Your task to perform on an android device: Show me productivity apps on the Play Store Image 0: 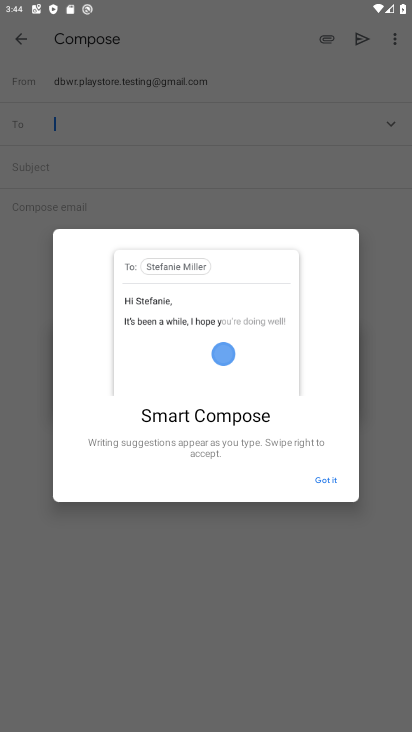
Step 0: press home button
Your task to perform on an android device: Show me productivity apps on the Play Store Image 1: 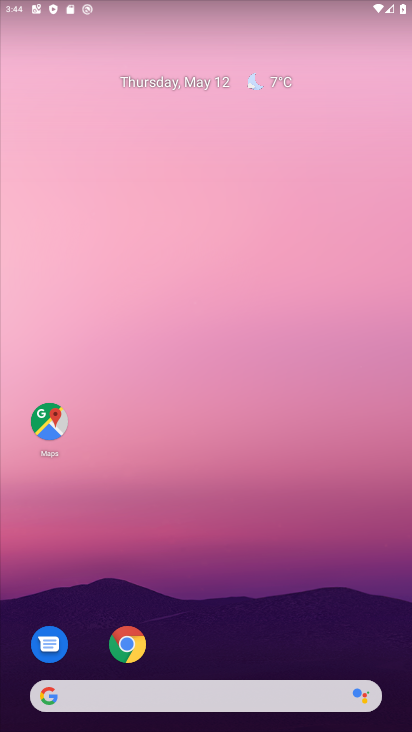
Step 1: drag from (236, 648) to (250, 475)
Your task to perform on an android device: Show me productivity apps on the Play Store Image 2: 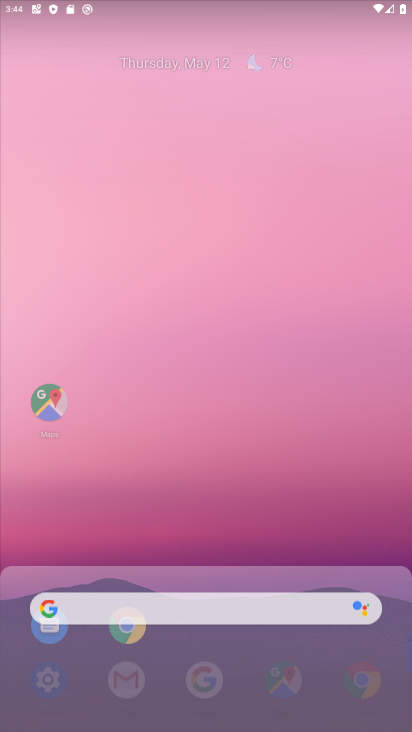
Step 2: click (259, 191)
Your task to perform on an android device: Show me productivity apps on the Play Store Image 3: 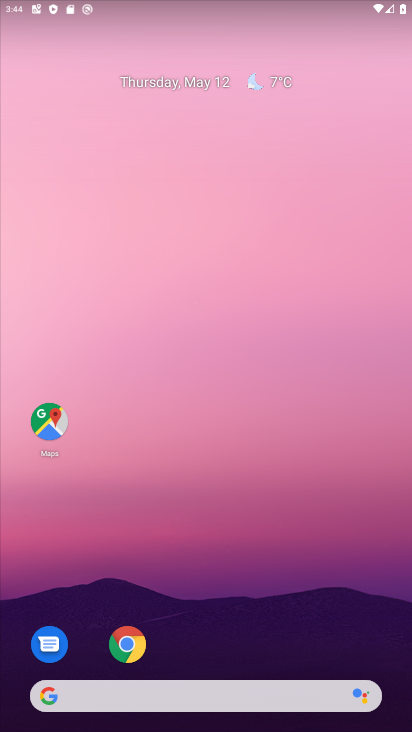
Step 3: drag from (215, 655) to (232, 114)
Your task to perform on an android device: Show me productivity apps on the Play Store Image 4: 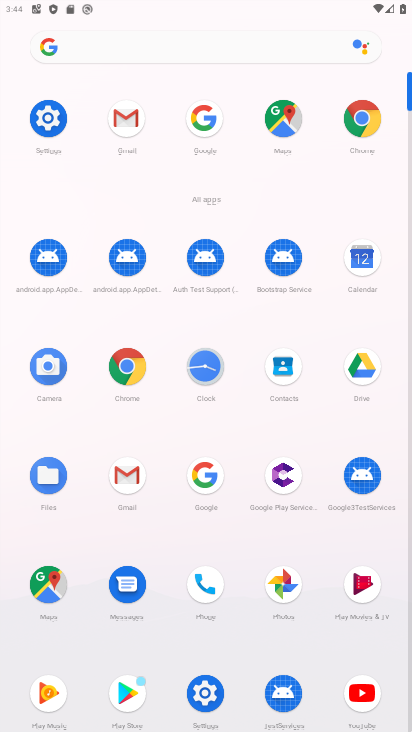
Step 4: click (122, 689)
Your task to perform on an android device: Show me productivity apps on the Play Store Image 5: 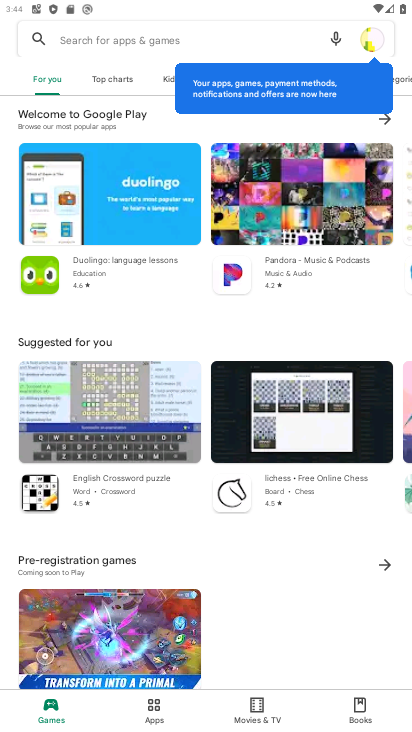
Step 5: click (152, 702)
Your task to perform on an android device: Show me productivity apps on the Play Store Image 6: 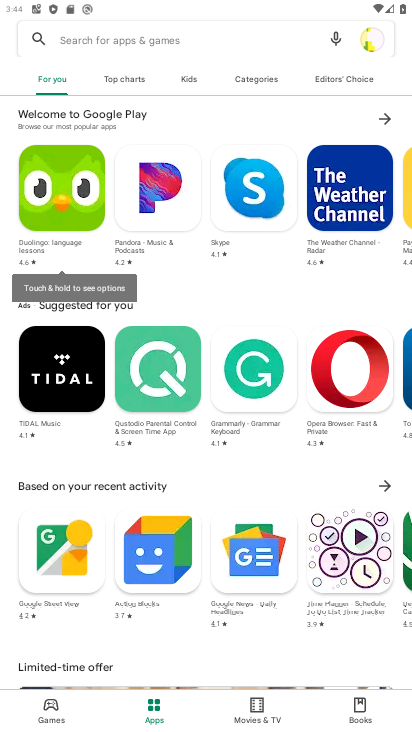
Step 6: click (250, 85)
Your task to perform on an android device: Show me productivity apps on the Play Store Image 7: 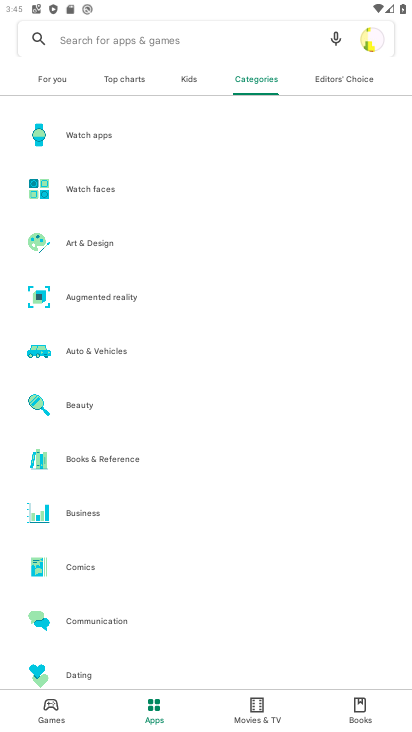
Step 7: drag from (117, 659) to (170, 70)
Your task to perform on an android device: Show me productivity apps on the Play Store Image 8: 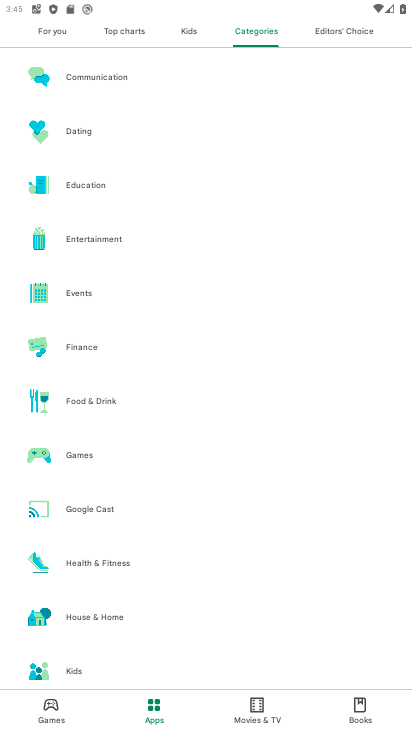
Step 8: drag from (136, 654) to (168, 183)
Your task to perform on an android device: Show me productivity apps on the Play Store Image 9: 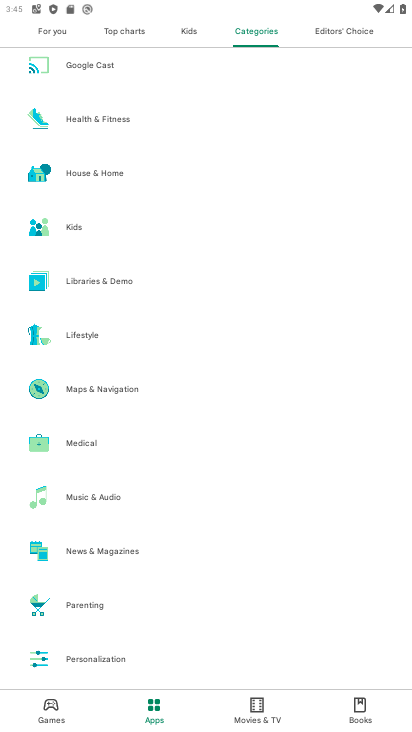
Step 9: drag from (132, 643) to (141, 572)
Your task to perform on an android device: Show me productivity apps on the Play Store Image 10: 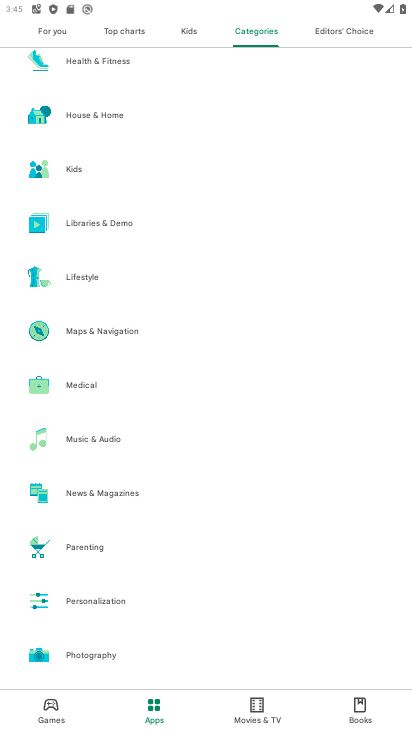
Step 10: drag from (159, 404) to (163, 360)
Your task to perform on an android device: Show me productivity apps on the Play Store Image 11: 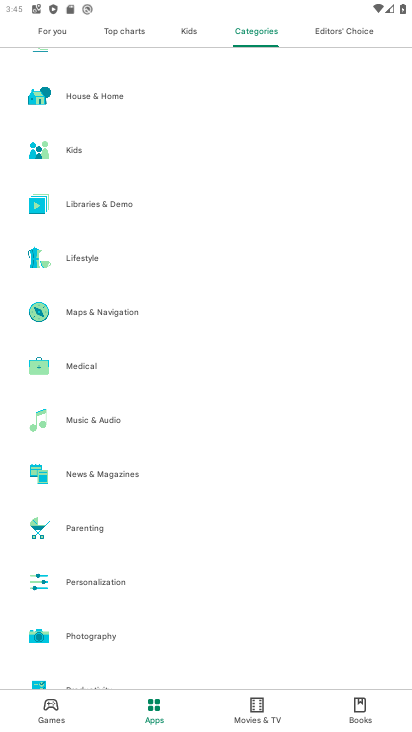
Step 11: drag from (124, 637) to (150, 392)
Your task to perform on an android device: Show me productivity apps on the Play Store Image 12: 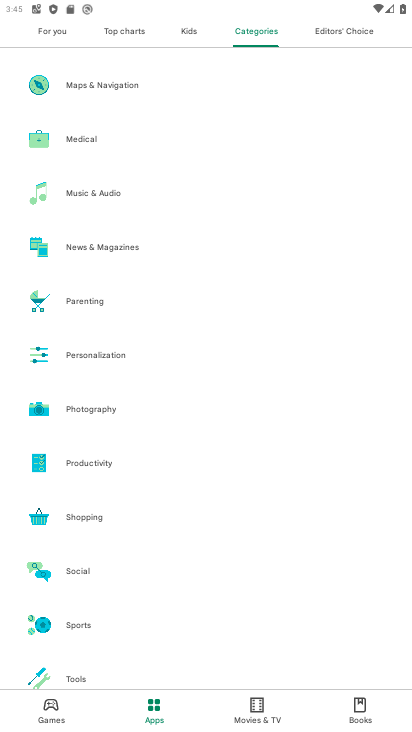
Step 12: click (126, 468)
Your task to perform on an android device: Show me productivity apps on the Play Store Image 13: 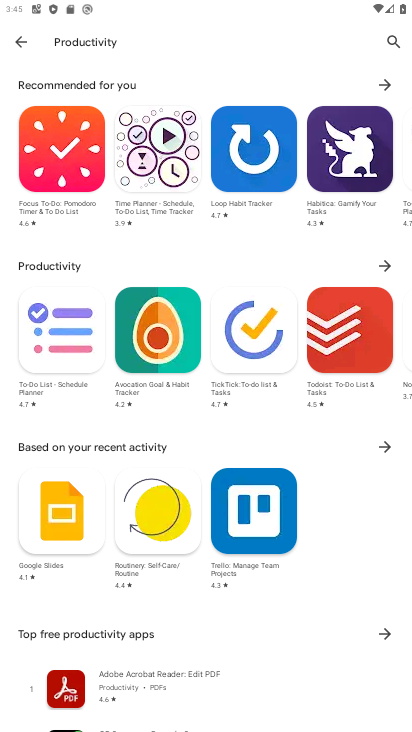
Step 13: task complete